Your task to perform on an android device: delete browsing data in the chrome app Image 0: 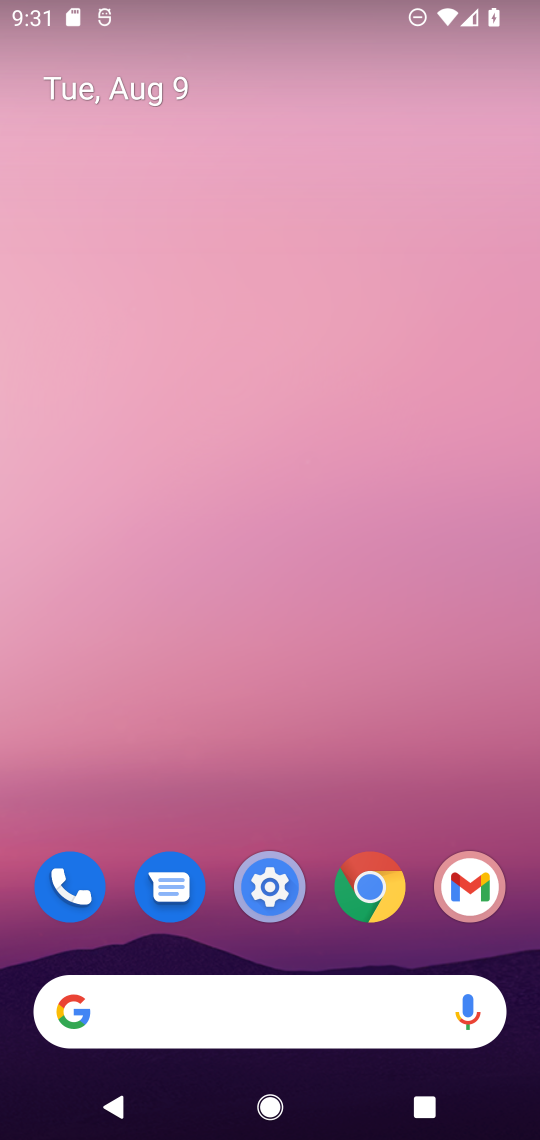
Step 0: click (369, 863)
Your task to perform on an android device: delete browsing data in the chrome app Image 1: 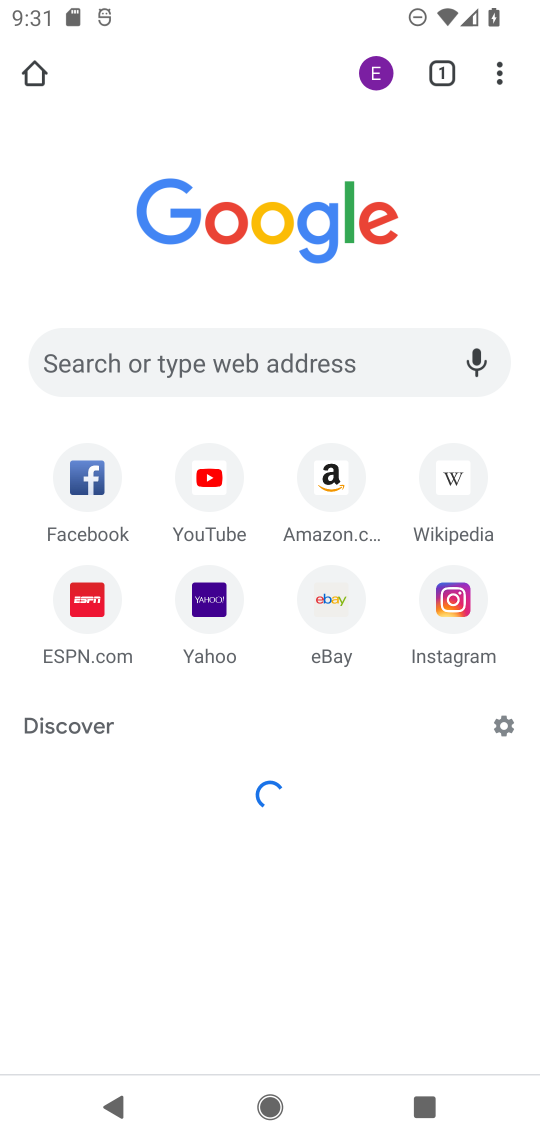
Step 1: click (496, 56)
Your task to perform on an android device: delete browsing data in the chrome app Image 2: 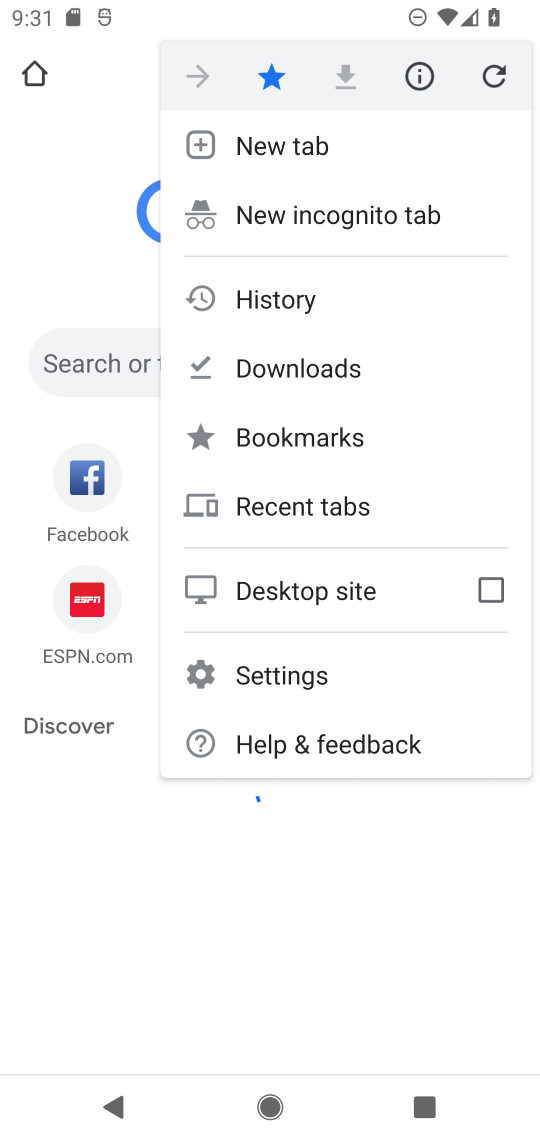
Step 2: click (311, 308)
Your task to perform on an android device: delete browsing data in the chrome app Image 3: 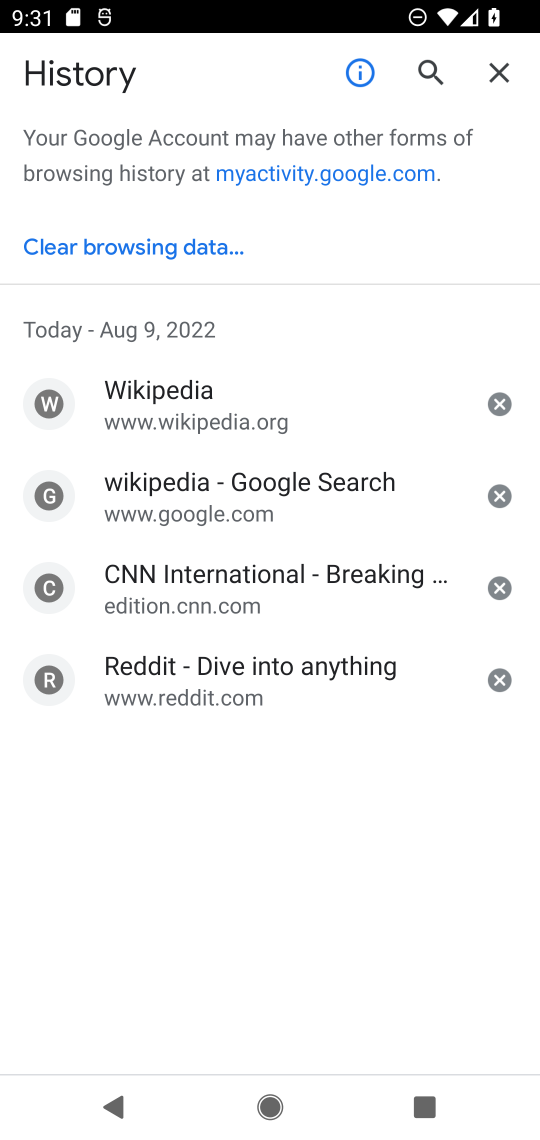
Step 3: click (162, 255)
Your task to perform on an android device: delete browsing data in the chrome app Image 4: 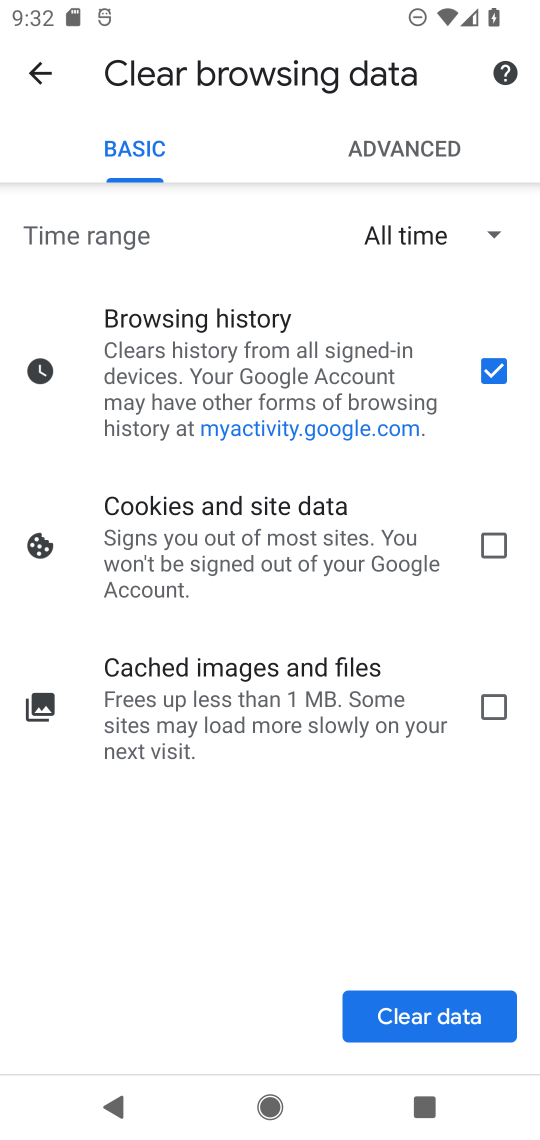
Step 4: click (479, 539)
Your task to perform on an android device: delete browsing data in the chrome app Image 5: 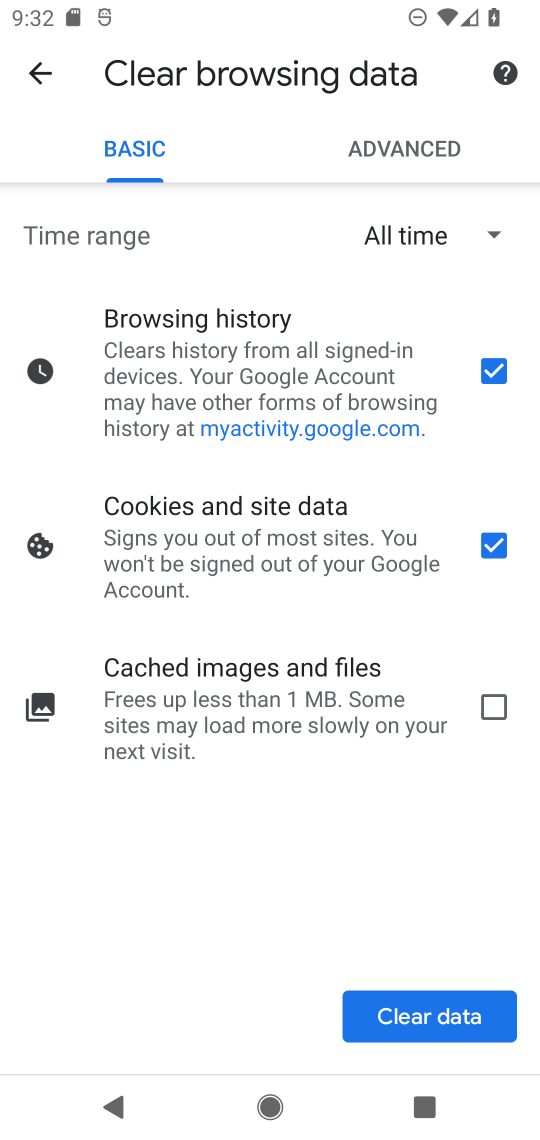
Step 5: click (488, 732)
Your task to perform on an android device: delete browsing data in the chrome app Image 6: 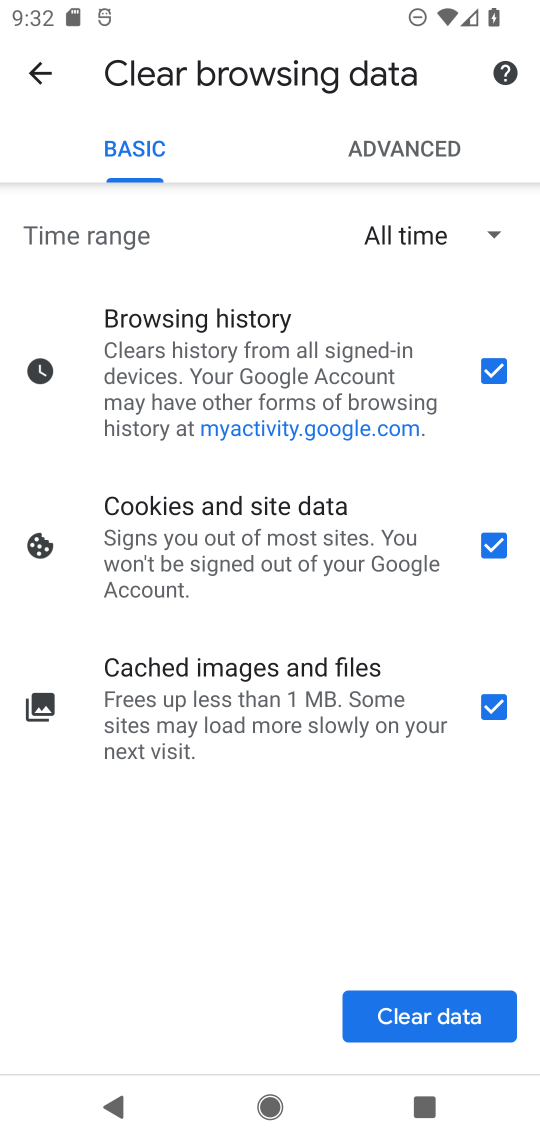
Step 6: click (412, 1010)
Your task to perform on an android device: delete browsing data in the chrome app Image 7: 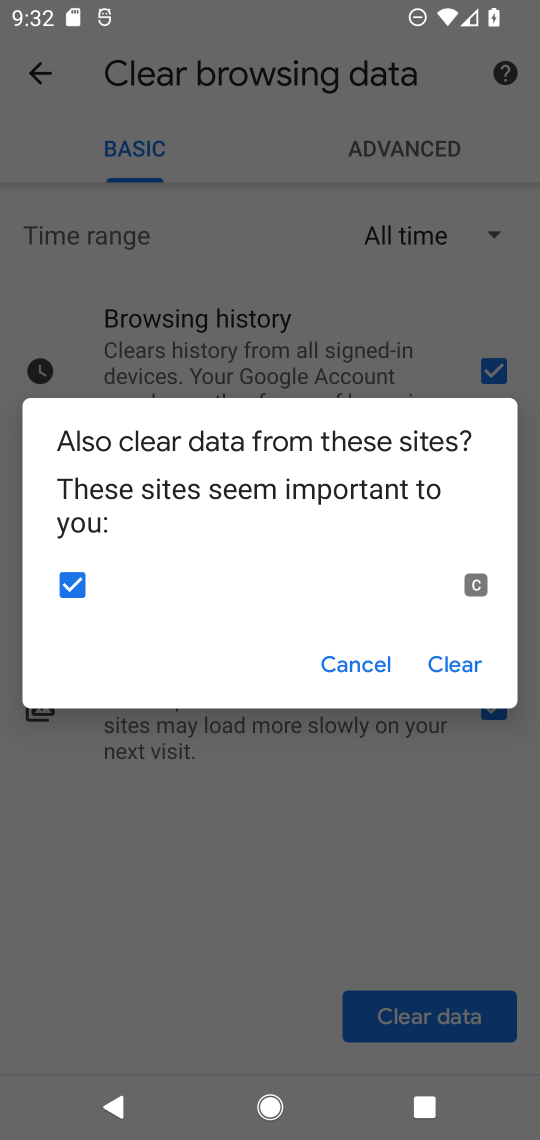
Step 7: click (459, 675)
Your task to perform on an android device: delete browsing data in the chrome app Image 8: 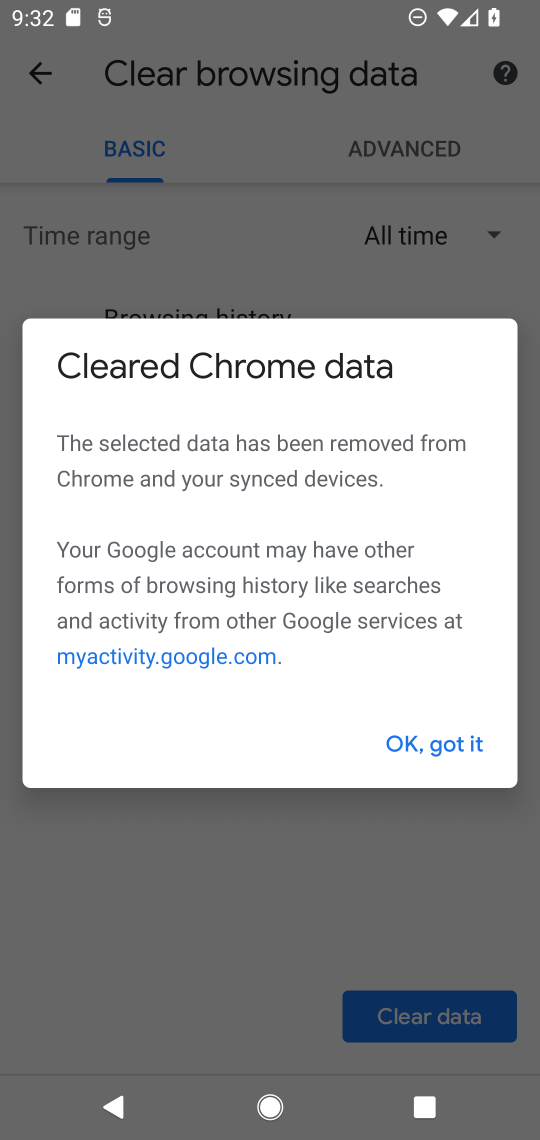
Step 8: click (433, 740)
Your task to perform on an android device: delete browsing data in the chrome app Image 9: 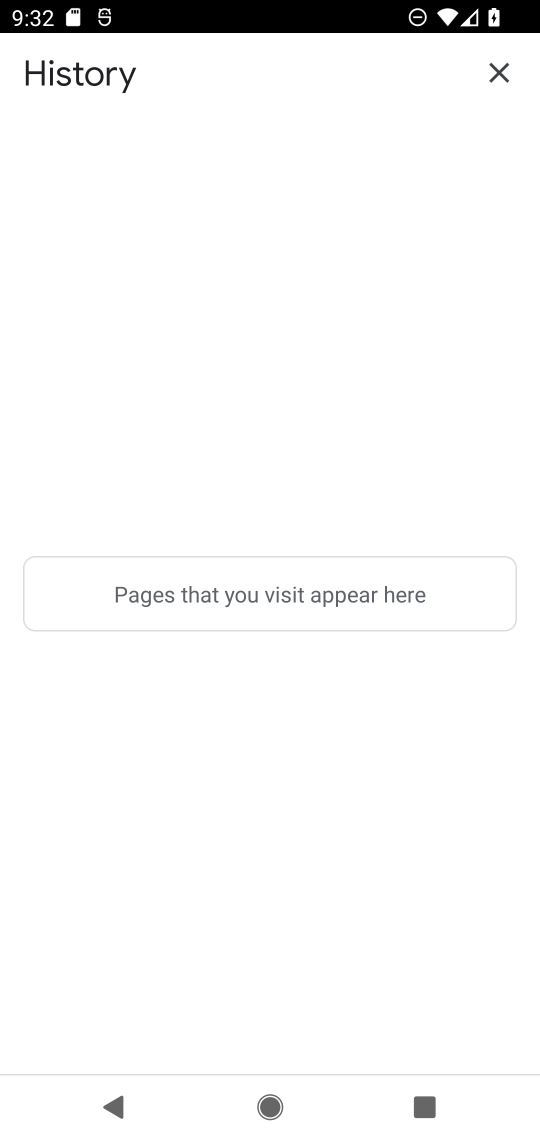
Step 9: task complete